Your task to perform on an android device: check data usage Image 0: 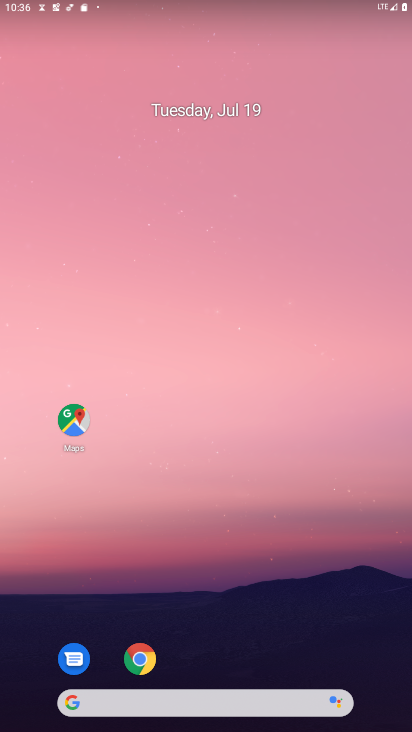
Step 0: drag from (203, 627) to (313, 85)
Your task to perform on an android device: check data usage Image 1: 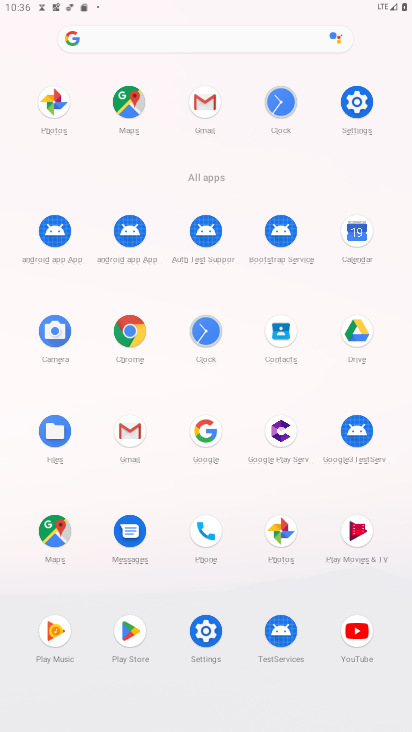
Step 1: click (215, 628)
Your task to perform on an android device: check data usage Image 2: 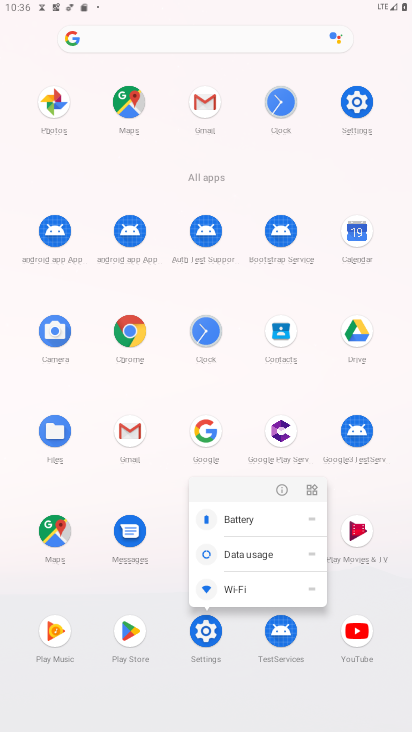
Step 2: click (276, 490)
Your task to perform on an android device: check data usage Image 3: 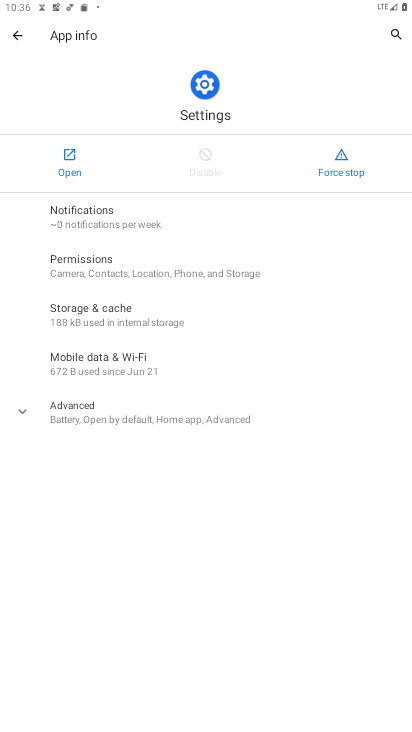
Step 3: click (61, 155)
Your task to perform on an android device: check data usage Image 4: 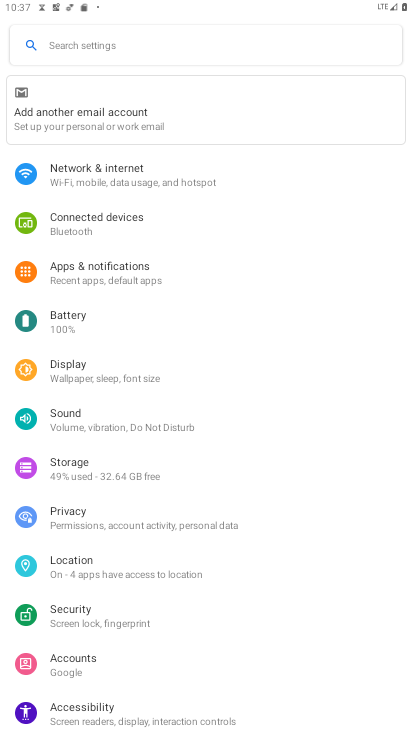
Step 4: click (110, 174)
Your task to perform on an android device: check data usage Image 5: 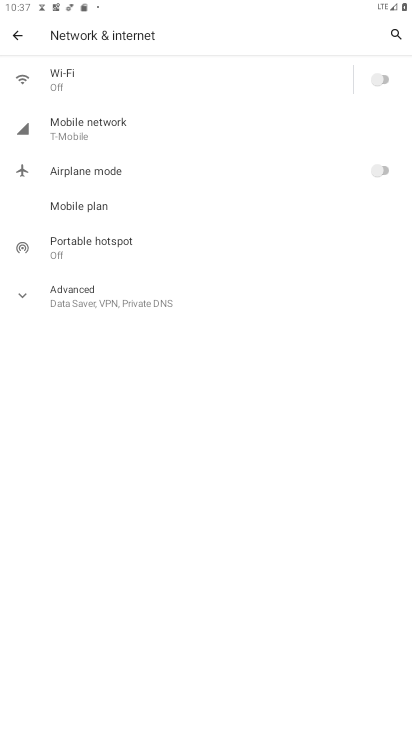
Step 5: click (208, 128)
Your task to perform on an android device: check data usage Image 6: 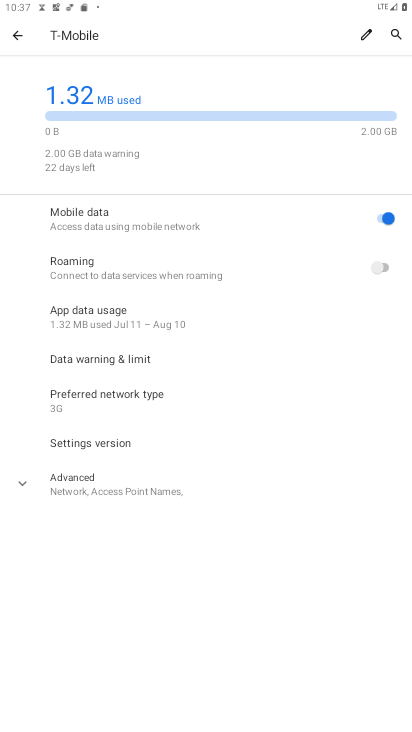
Step 6: task complete